Your task to perform on an android device: Open eBay Image 0: 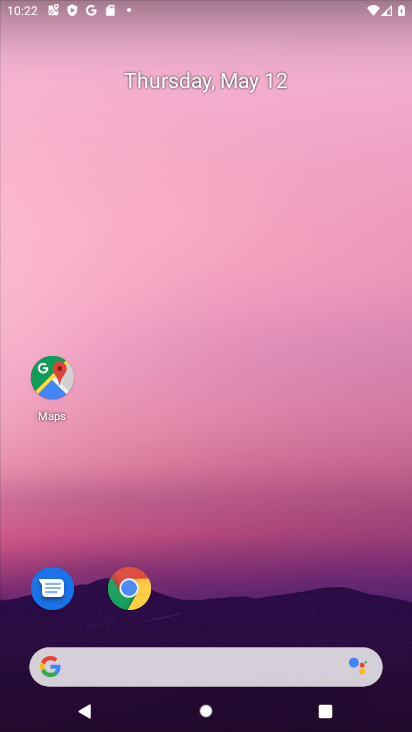
Step 0: click (136, 592)
Your task to perform on an android device: Open eBay Image 1: 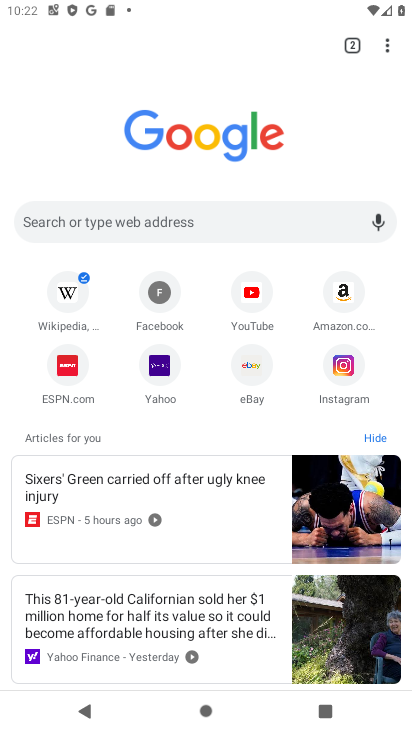
Step 1: click (253, 370)
Your task to perform on an android device: Open eBay Image 2: 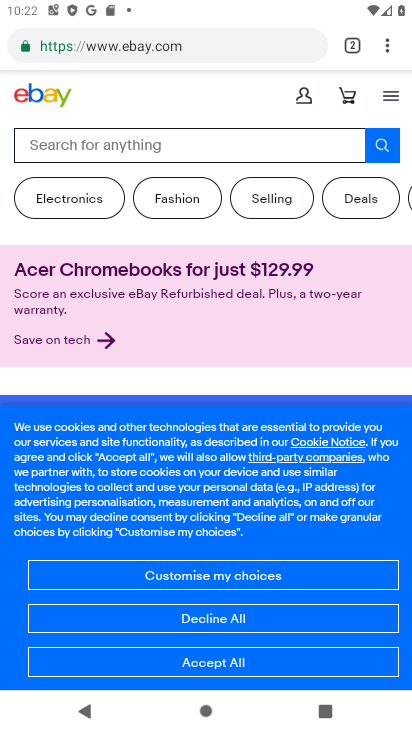
Step 2: task complete